Your task to perform on an android device: empty trash in google photos Image 0: 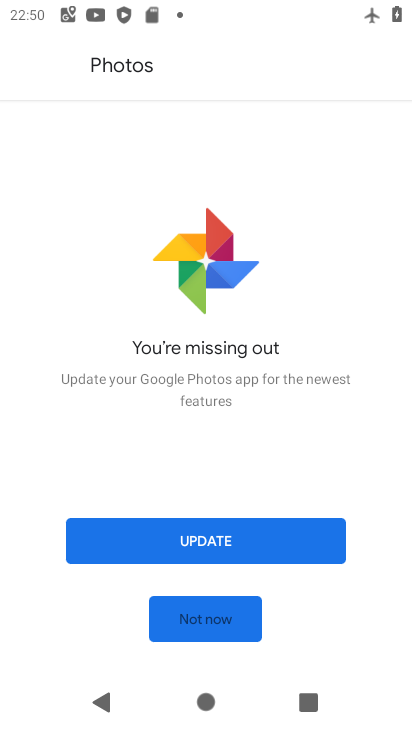
Step 0: press home button
Your task to perform on an android device: empty trash in google photos Image 1: 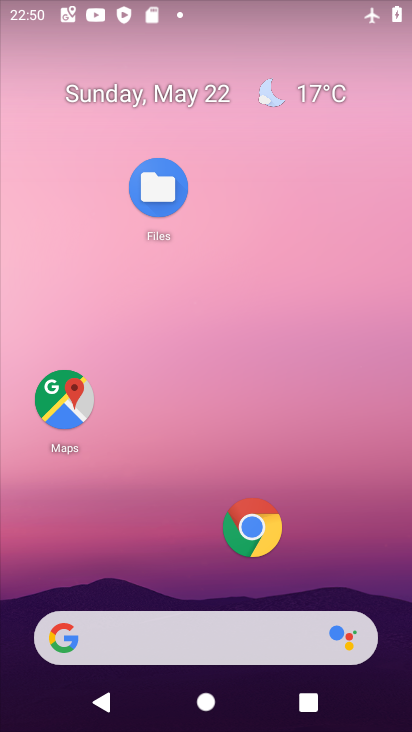
Step 1: drag from (172, 490) to (71, 67)
Your task to perform on an android device: empty trash in google photos Image 2: 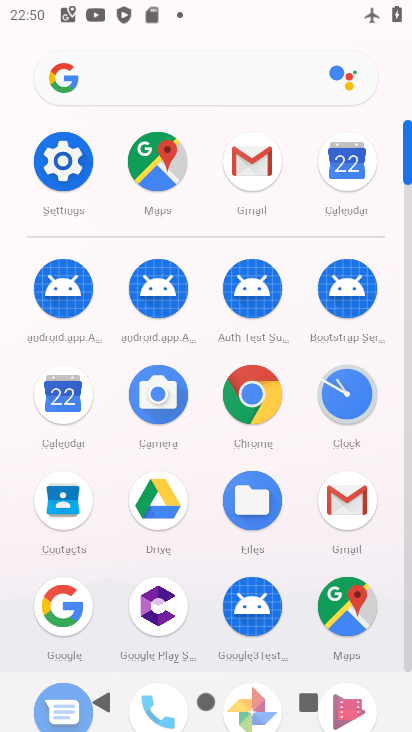
Step 2: drag from (200, 510) to (113, 85)
Your task to perform on an android device: empty trash in google photos Image 3: 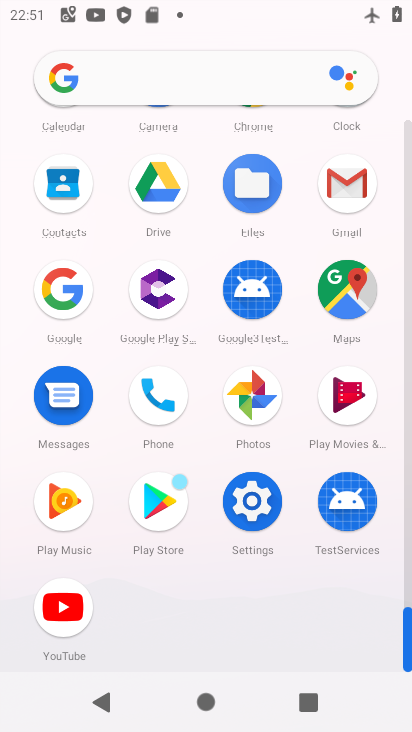
Step 3: click (234, 402)
Your task to perform on an android device: empty trash in google photos Image 4: 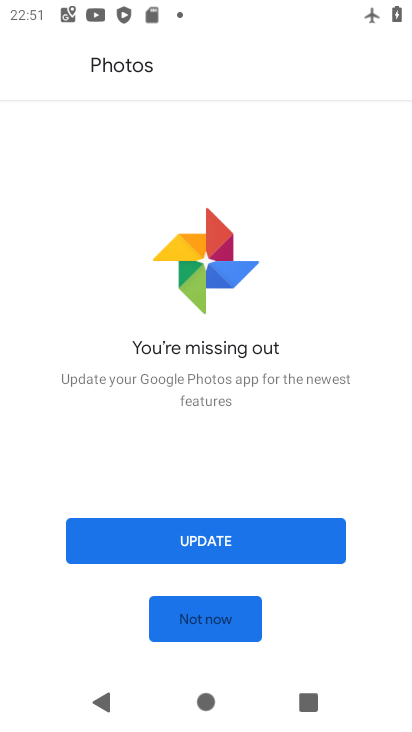
Step 4: click (214, 551)
Your task to perform on an android device: empty trash in google photos Image 5: 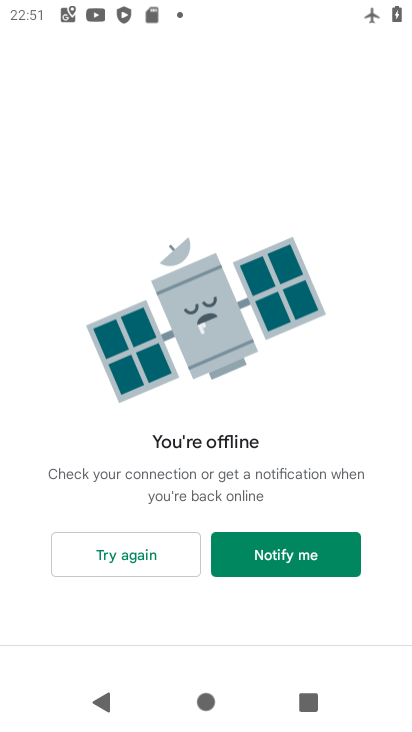
Step 5: click (233, 554)
Your task to perform on an android device: empty trash in google photos Image 6: 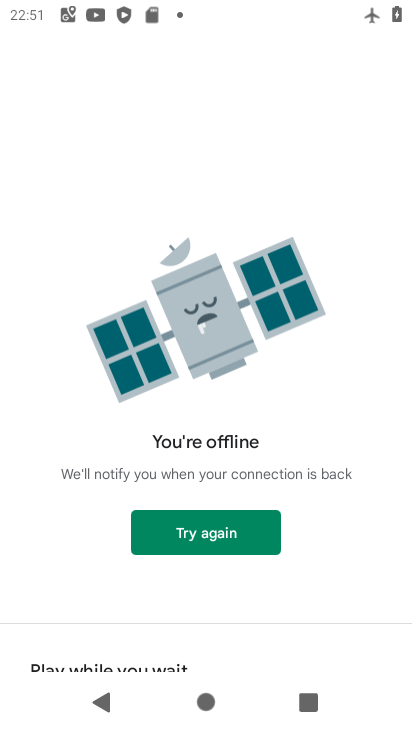
Step 6: task complete